Your task to perform on an android device: Show me the alarms in the clock app Image 0: 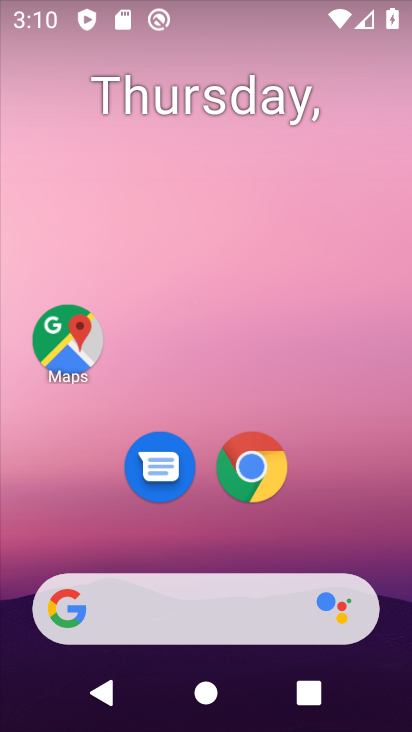
Step 0: drag from (198, 624) to (118, 78)
Your task to perform on an android device: Show me the alarms in the clock app Image 1: 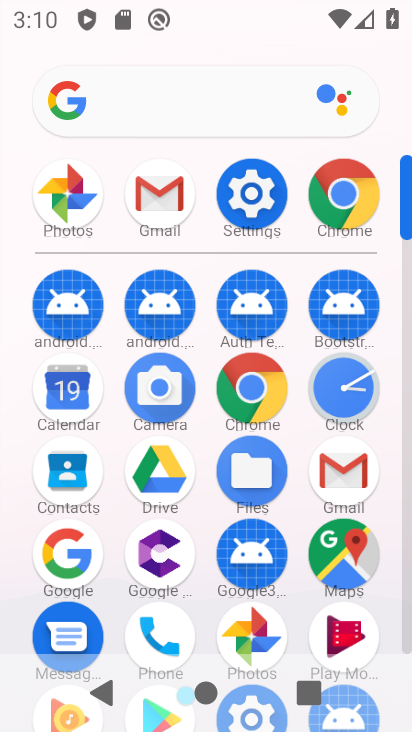
Step 1: click (373, 408)
Your task to perform on an android device: Show me the alarms in the clock app Image 2: 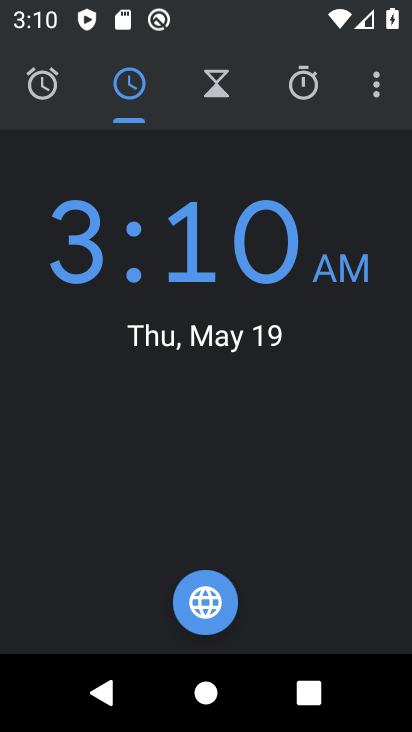
Step 2: click (61, 99)
Your task to perform on an android device: Show me the alarms in the clock app Image 3: 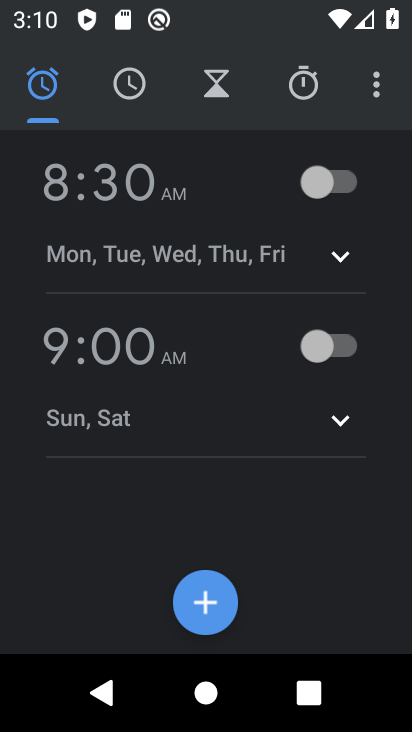
Step 3: task complete